Your task to perform on an android device: Open Google Maps Image 0: 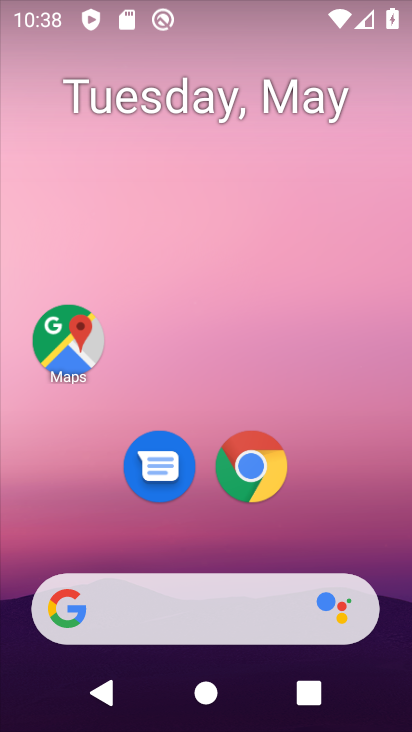
Step 0: click (74, 323)
Your task to perform on an android device: Open Google Maps Image 1: 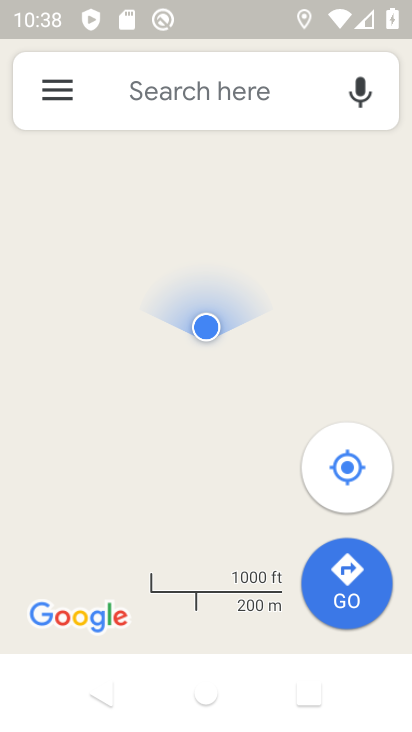
Step 1: task complete